Your task to perform on an android device: turn on data saver in the chrome app Image 0: 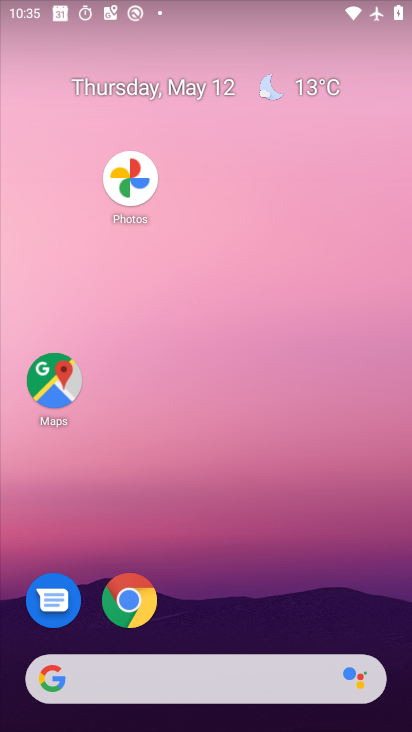
Step 0: drag from (288, 568) to (143, 4)
Your task to perform on an android device: turn on data saver in the chrome app Image 1: 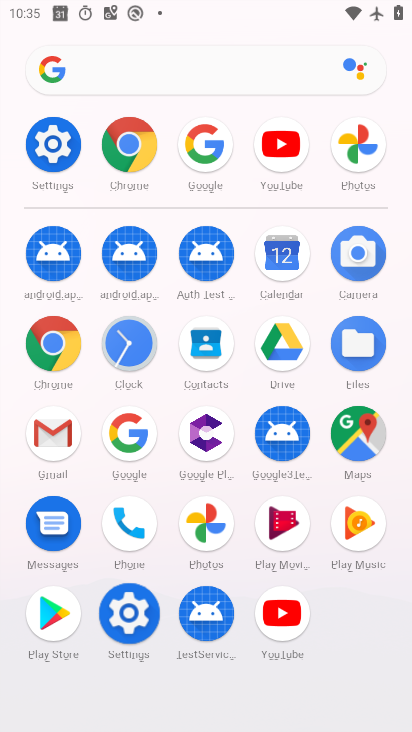
Step 1: click (56, 349)
Your task to perform on an android device: turn on data saver in the chrome app Image 2: 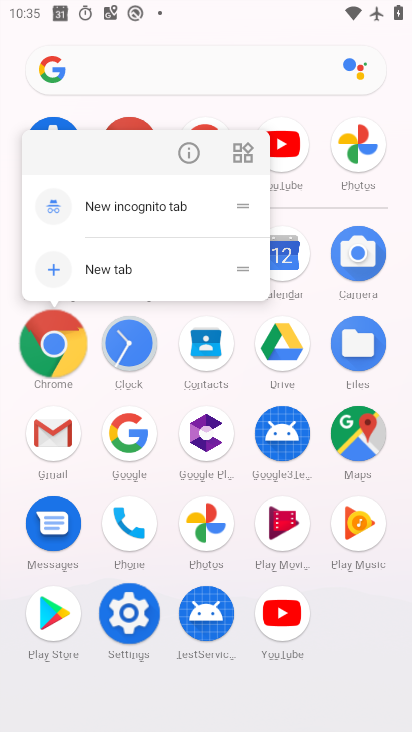
Step 2: click (56, 349)
Your task to perform on an android device: turn on data saver in the chrome app Image 3: 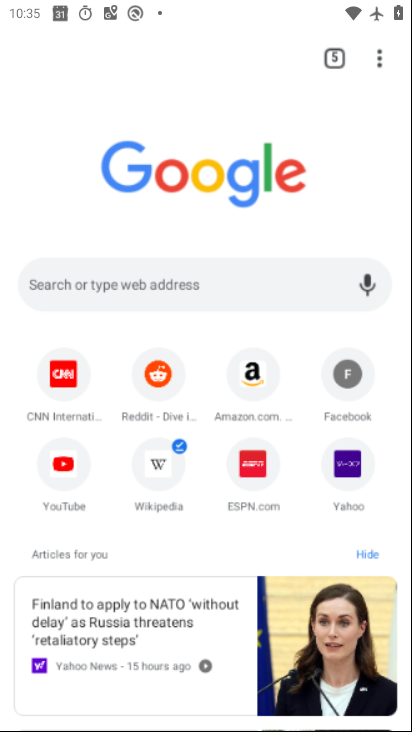
Step 3: click (56, 338)
Your task to perform on an android device: turn on data saver in the chrome app Image 4: 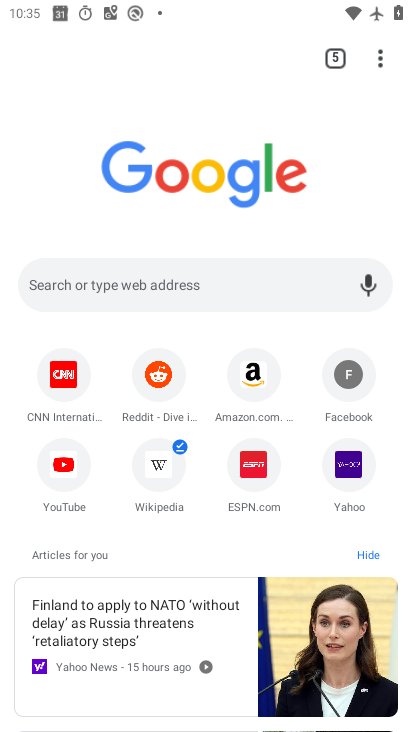
Step 4: drag from (376, 60) to (150, 486)
Your task to perform on an android device: turn on data saver in the chrome app Image 5: 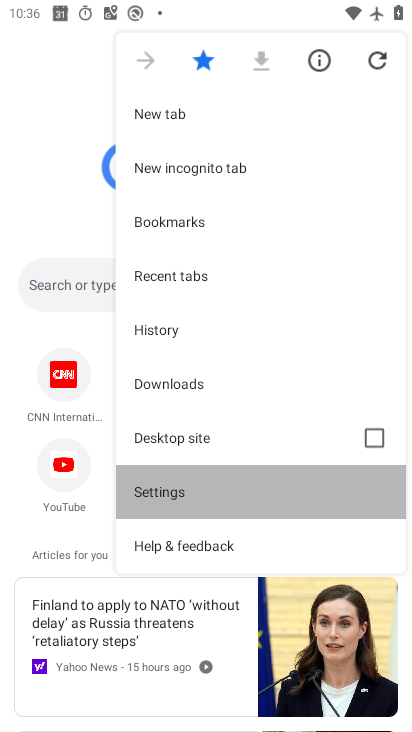
Step 5: click (152, 487)
Your task to perform on an android device: turn on data saver in the chrome app Image 6: 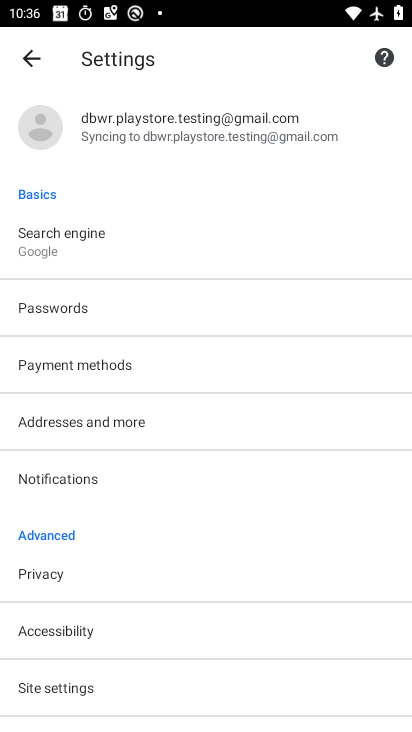
Step 6: drag from (211, 509) to (160, 83)
Your task to perform on an android device: turn on data saver in the chrome app Image 7: 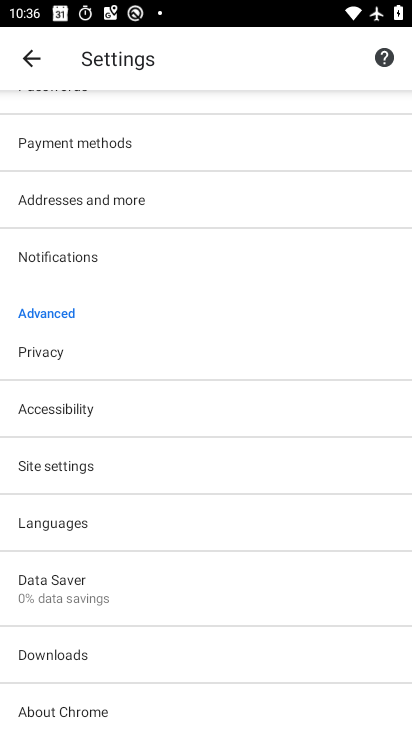
Step 7: drag from (196, 432) to (160, 123)
Your task to perform on an android device: turn on data saver in the chrome app Image 8: 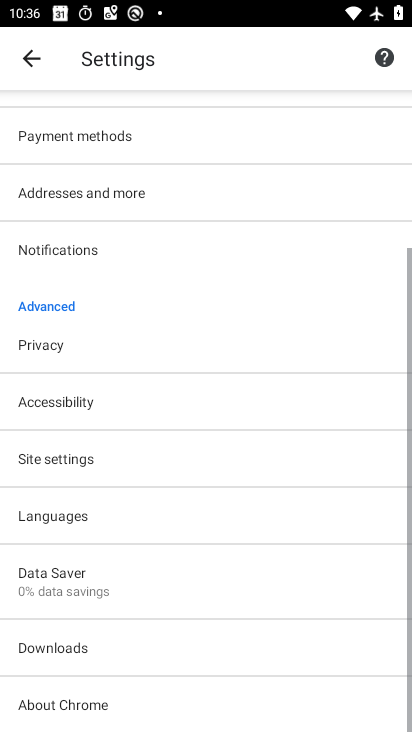
Step 8: drag from (112, 500) to (48, 75)
Your task to perform on an android device: turn on data saver in the chrome app Image 9: 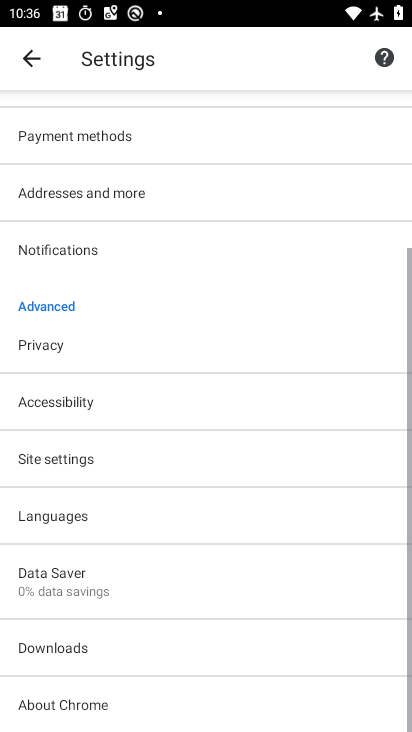
Step 9: drag from (85, 238) to (60, 43)
Your task to perform on an android device: turn on data saver in the chrome app Image 10: 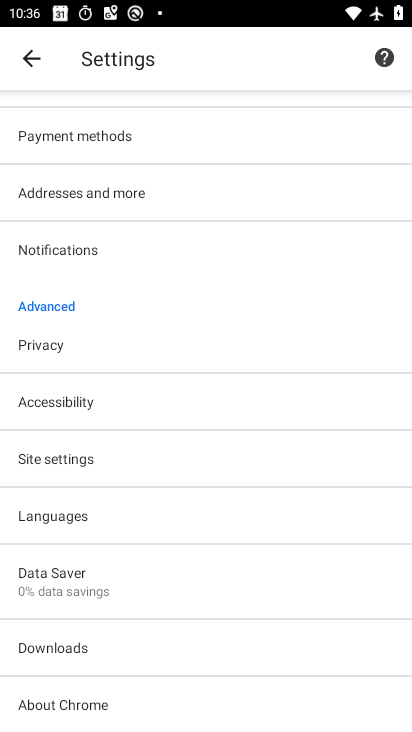
Step 10: click (42, 573)
Your task to perform on an android device: turn on data saver in the chrome app Image 11: 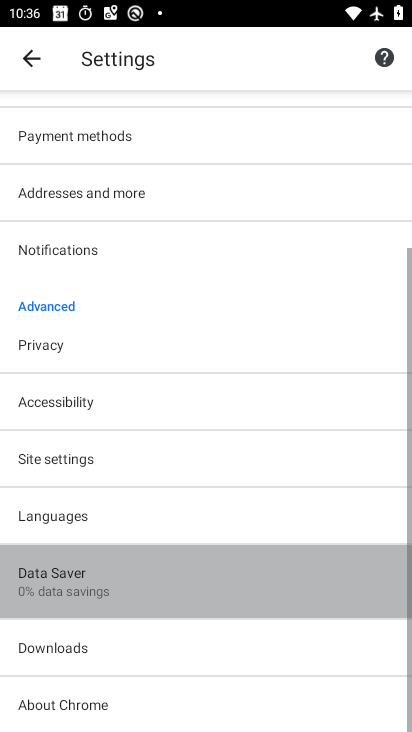
Step 11: click (42, 573)
Your task to perform on an android device: turn on data saver in the chrome app Image 12: 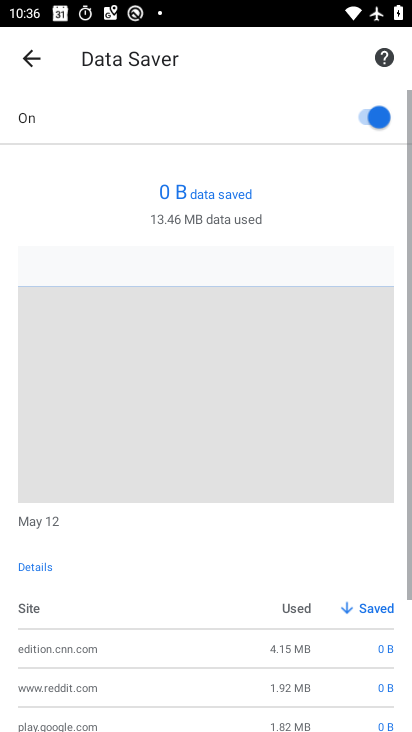
Step 12: task complete